Your task to perform on an android device: open chrome and create a bookmark for the current page Image 0: 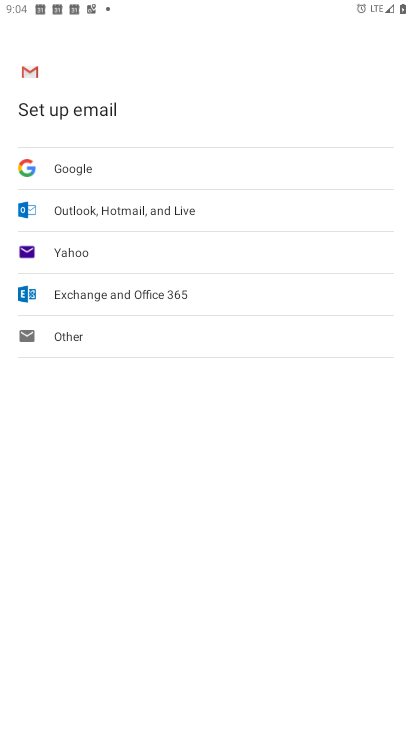
Step 0: press home button
Your task to perform on an android device: open chrome and create a bookmark for the current page Image 1: 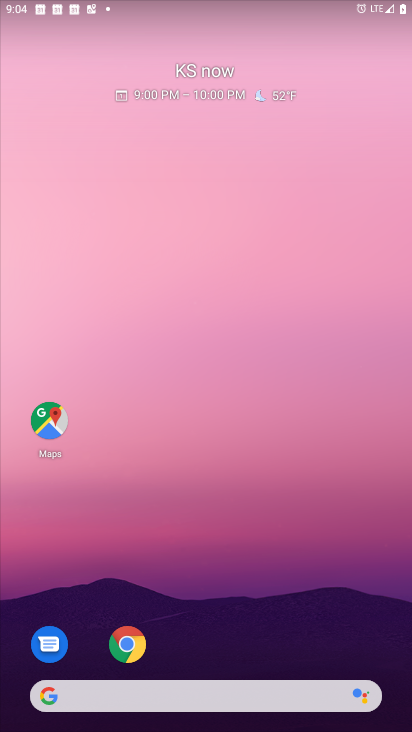
Step 1: click (123, 646)
Your task to perform on an android device: open chrome and create a bookmark for the current page Image 2: 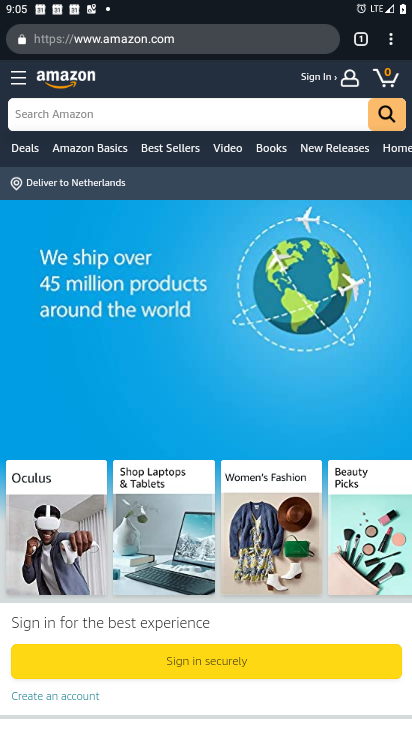
Step 2: click (392, 42)
Your task to perform on an android device: open chrome and create a bookmark for the current page Image 3: 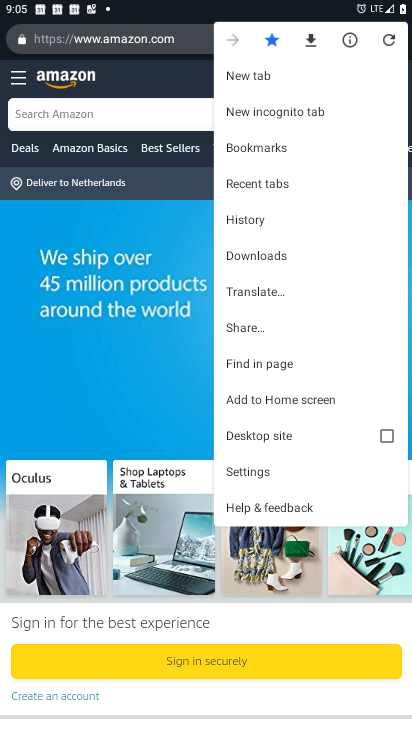
Step 3: task complete